Your task to perform on an android device: What is the news today? Image 0: 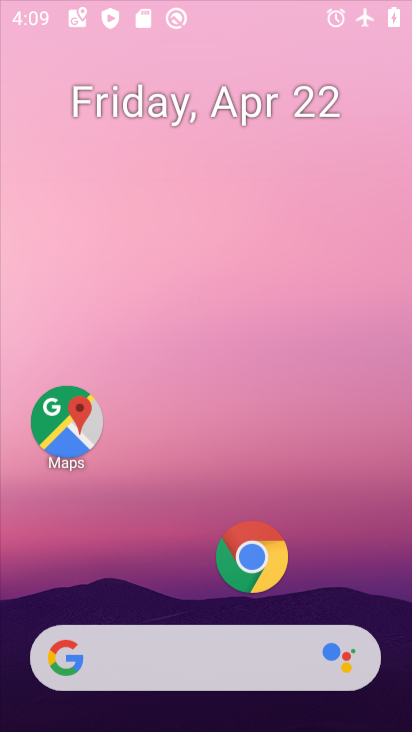
Step 0: click (316, 318)
Your task to perform on an android device: What is the news today? Image 1: 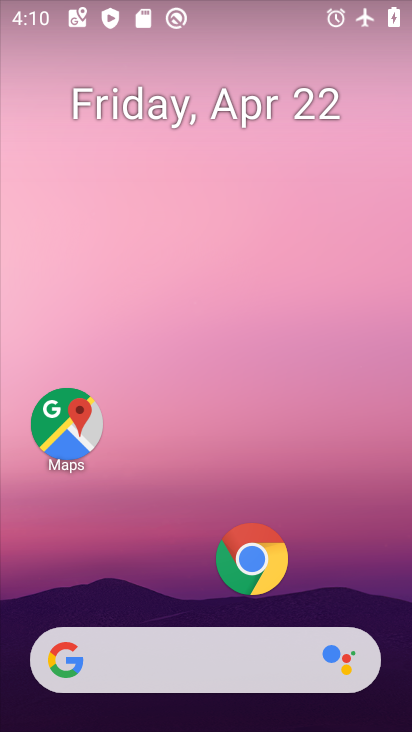
Step 1: drag from (174, 568) to (211, 36)
Your task to perform on an android device: What is the news today? Image 2: 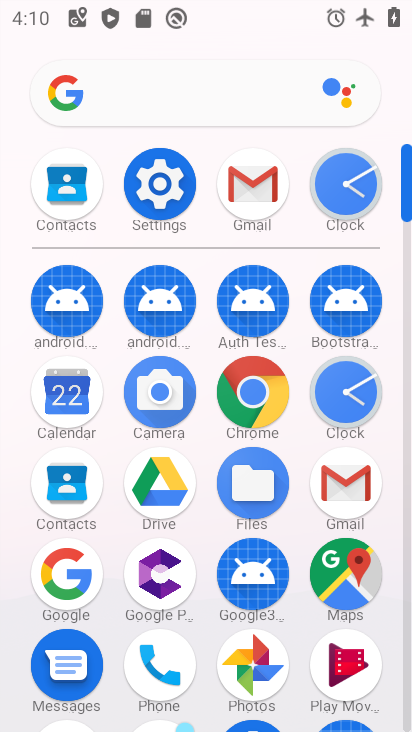
Step 2: click (204, 96)
Your task to perform on an android device: What is the news today? Image 3: 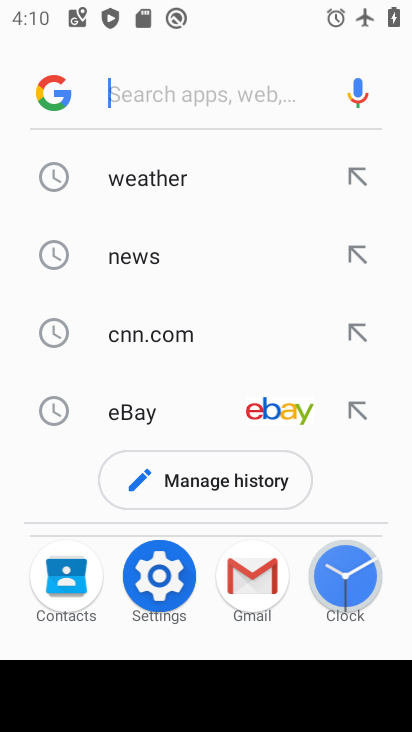
Step 3: type "news today"
Your task to perform on an android device: What is the news today? Image 4: 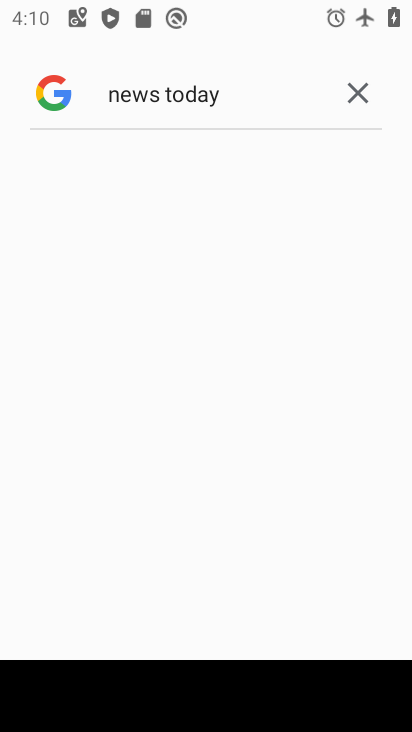
Step 4: task complete